Your task to perform on an android device: turn off sleep mode Image 0: 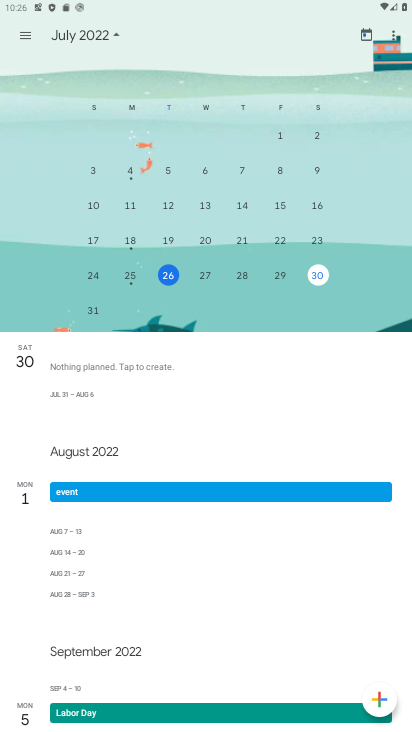
Step 0: press home button
Your task to perform on an android device: turn off sleep mode Image 1: 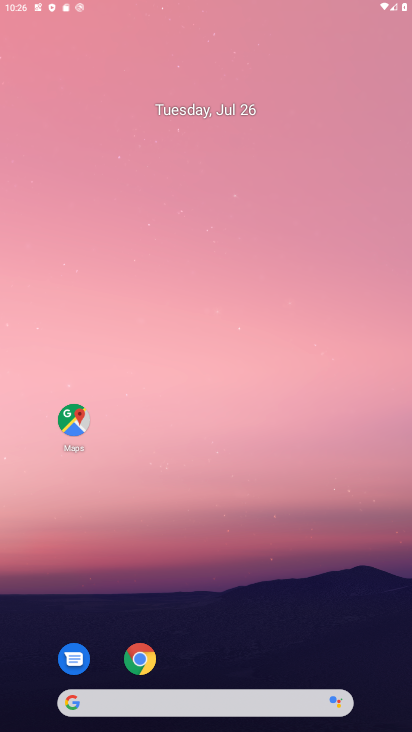
Step 1: drag from (201, 564) to (282, 5)
Your task to perform on an android device: turn off sleep mode Image 2: 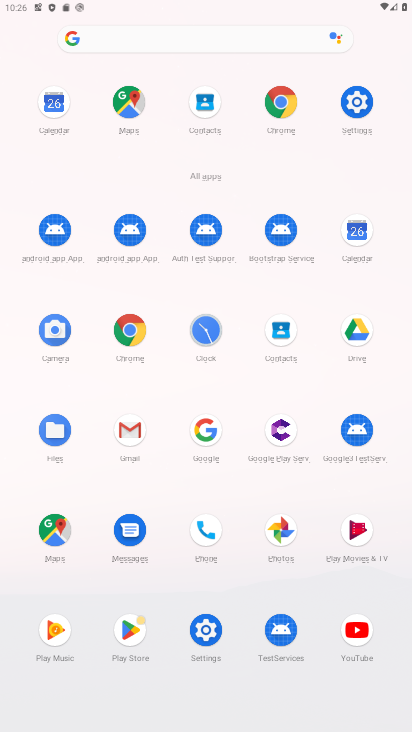
Step 2: click (348, 128)
Your task to perform on an android device: turn off sleep mode Image 3: 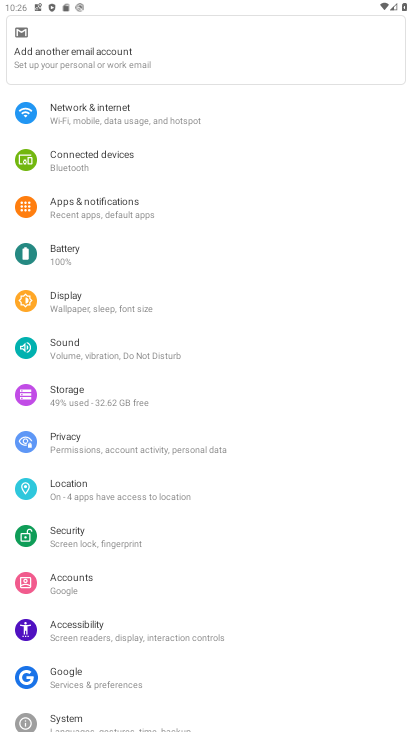
Step 3: click (77, 295)
Your task to perform on an android device: turn off sleep mode Image 4: 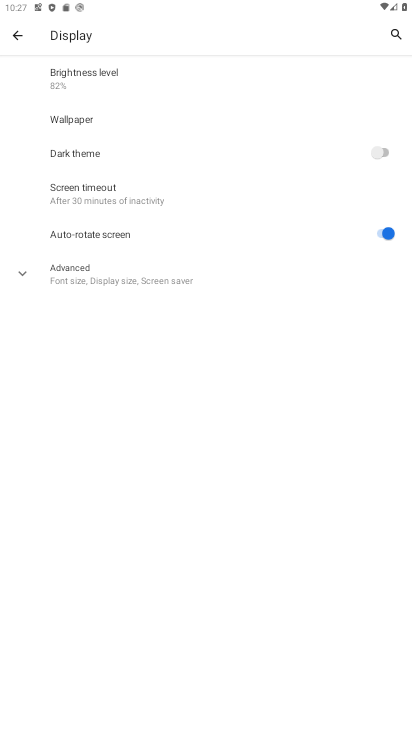
Step 4: task complete